Your task to perform on an android device: Show me productivity apps on the Play Store Image 0: 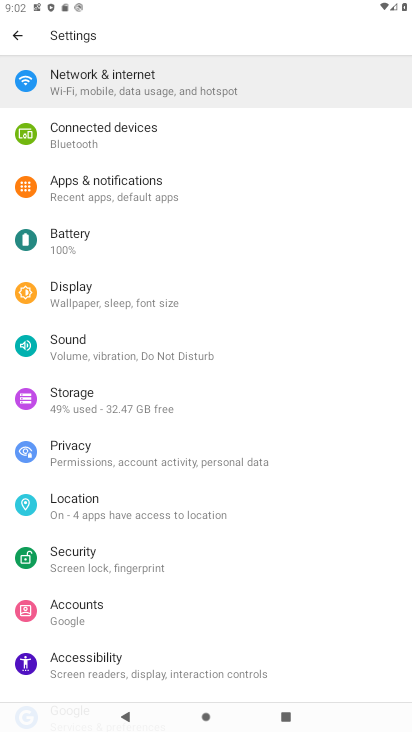
Step 0: press home button
Your task to perform on an android device: Show me productivity apps on the Play Store Image 1: 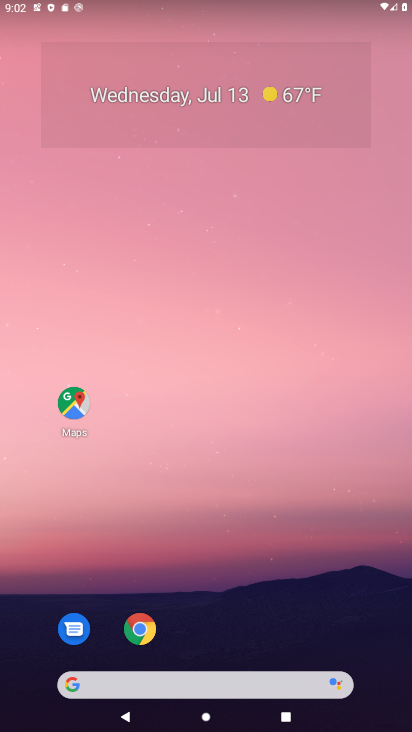
Step 1: drag from (243, 609) to (263, 5)
Your task to perform on an android device: Show me productivity apps on the Play Store Image 2: 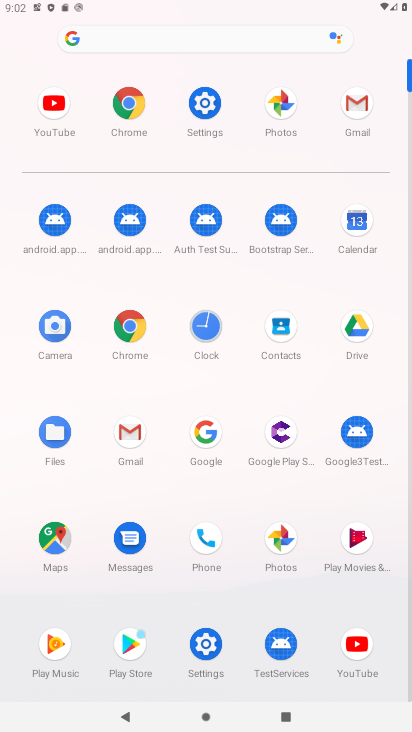
Step 2: click (124, 645)
Your task to perform on an android device: Show me productivity apps on the Play Store Image 3: 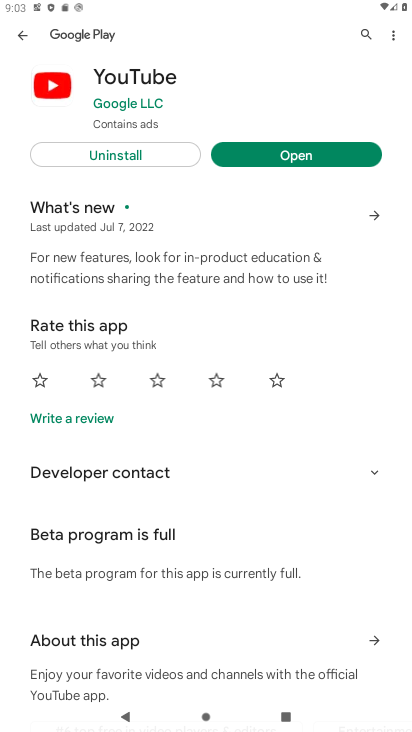
Step 3: click (21, 29)
Your task to perform on an android device: Show me productivity apps on the Play Store Image 4: 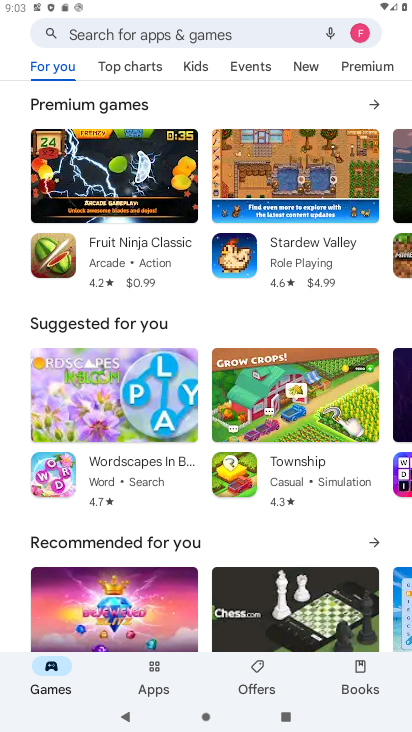
Step 4: click (153, 675)
Your task to perform on an android device: Show me productivity apps on the Play Store Image 5: 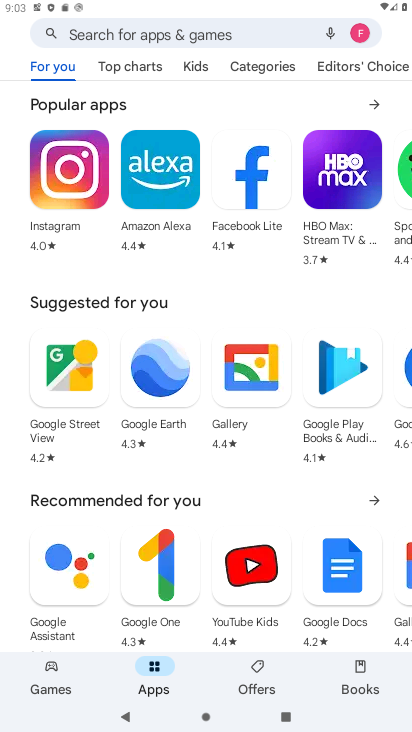
Step 5: click (271, 69)
Your task to perform on an android device: Show me productivity apps on the Play Store Image 6: 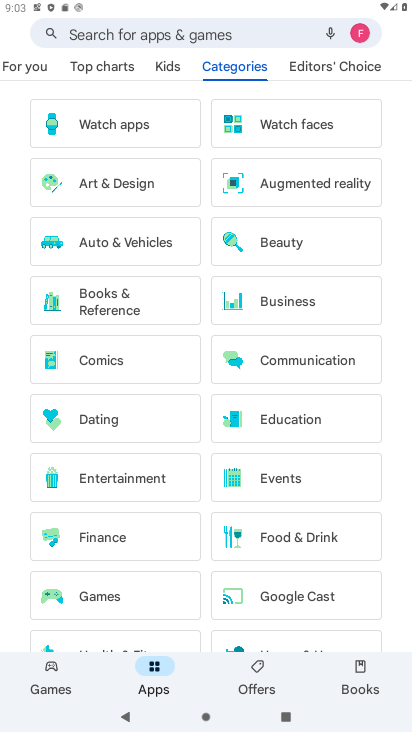
Step 6: drag from (164, 568) to (212, 251)
Your task to perform on an android device: Show me productivity apps on the Play Store Image 7: 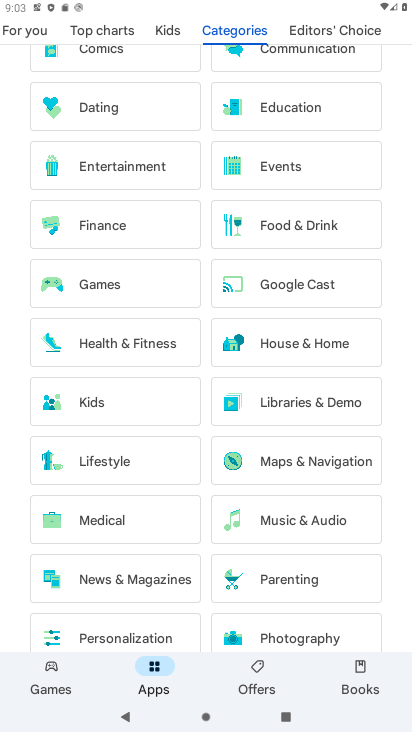
Step 7: drag from (227, 589) to (237, 384)
Your task to perform on an android device: Show me productivity apps on the Play Store Image 8: 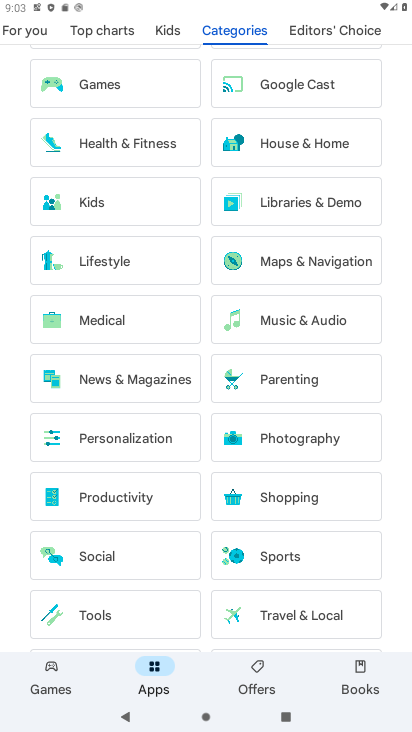
Step 8: click (120, 489)
Your task to perform on an android device: Show me productivity apps on the Play Store Image 9: 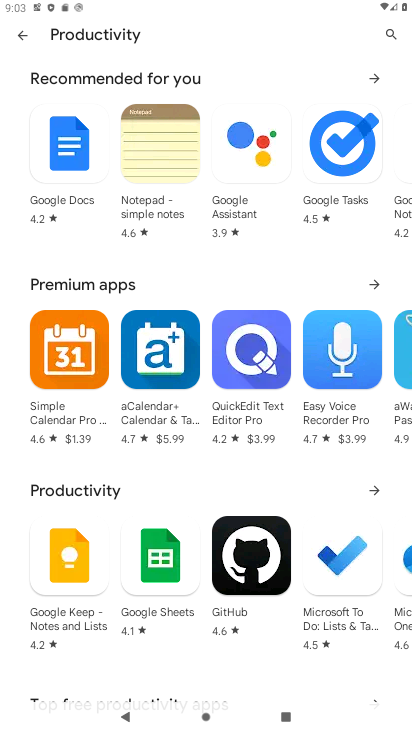
Step 9: task complete